Your task to perform on an android device: Go to ESPN.com Image 0: 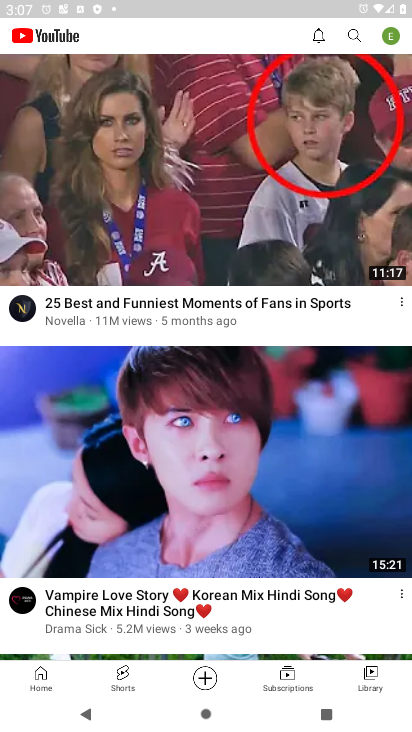
Step 0: press home button
Your task to perform on an android device: Go to ESPN.com Image 1: 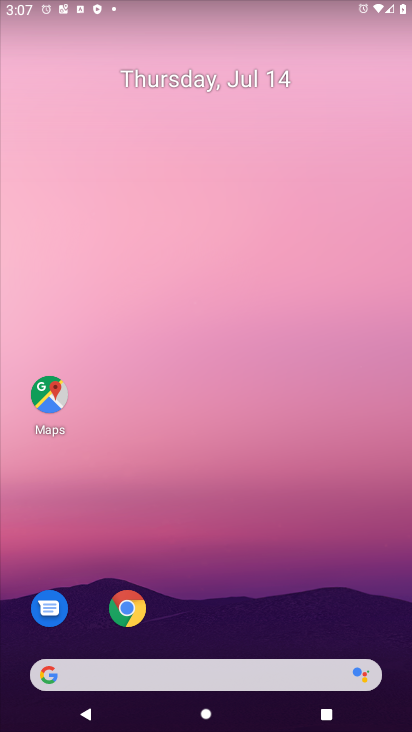
Step 1: click (123, 610)
Your task to perform on an android device: Go to ESPN.com Image 2: 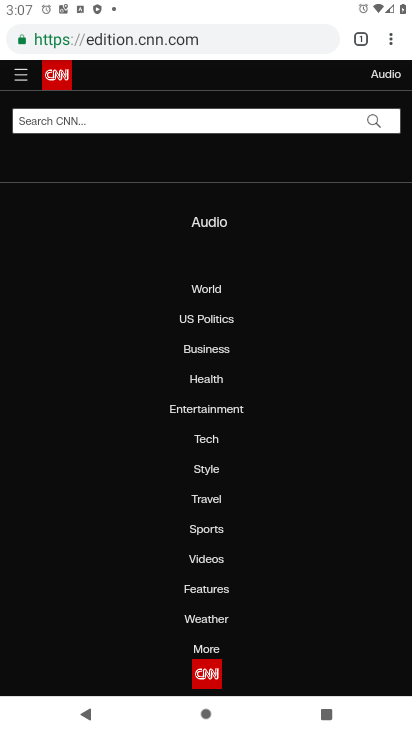
Step 2: click (211, 39)
Your task to perform on an android device: Go to ESPN.com Image 3: 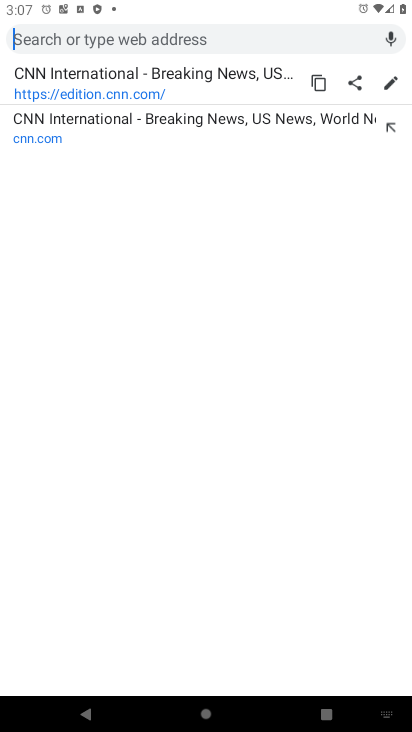
Step 3: type "ESPN.com"
Your task to perform on an android device: Go to ESPN.com Image 4: 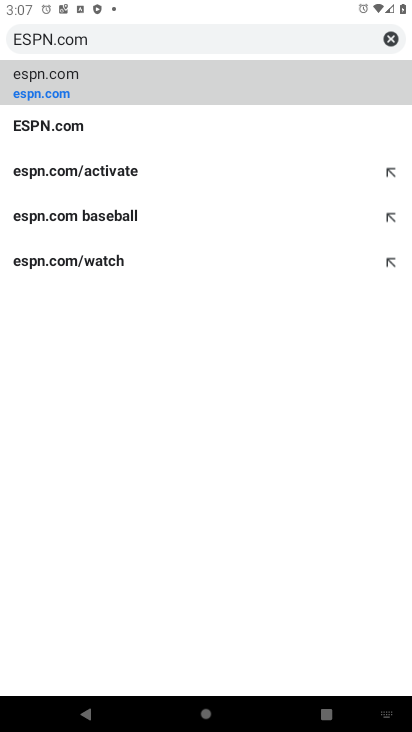
Step 4: click (61, 78)
Your task to perform on an android device: Go to ESPN.com Image 5: 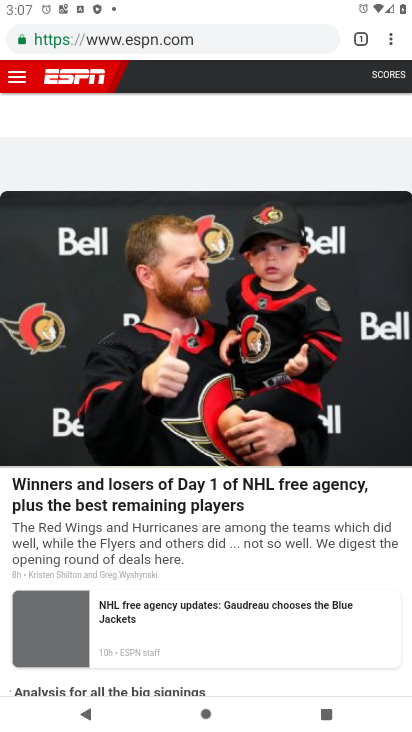
Step 5: task complete